Your task to perform on an android device: open app "Nova Launcher" (install if not already installed) Image 0: 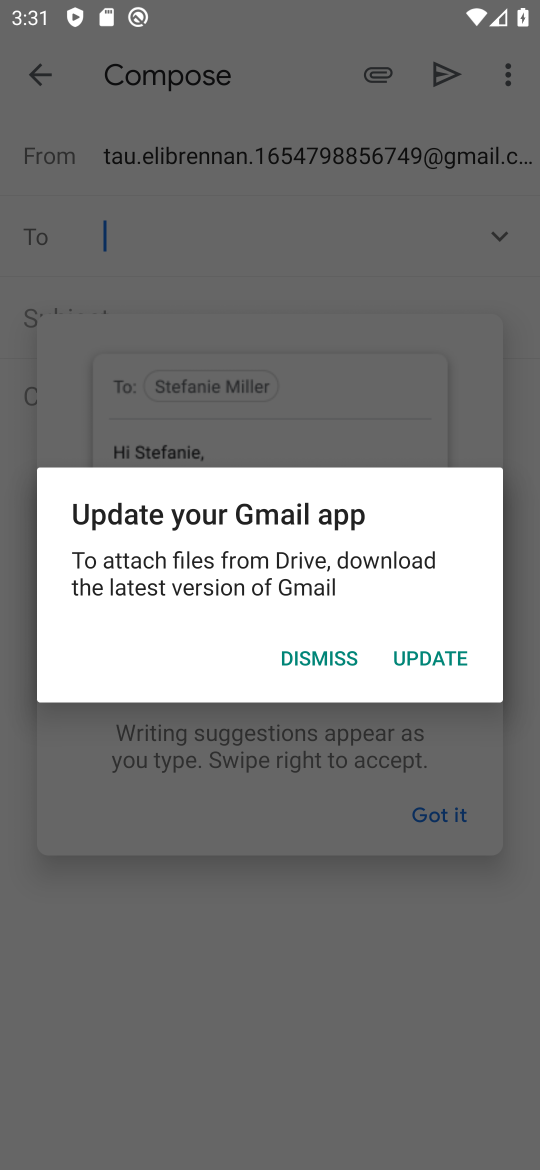
Step 0: press home button
Your task to perform on an android device: open app "Nova Launcher" (install if not already installed) Image 1: 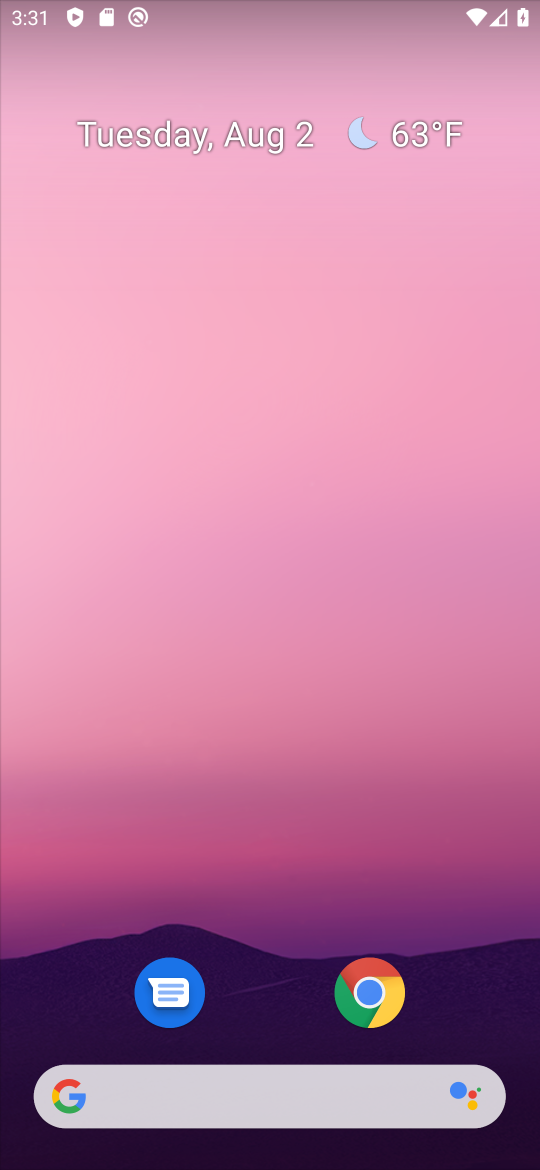
Step 1: drag from (273, 992) to (265, 85)
Your task to perform on an android device: open app "Nova Launcher" (install if not already installed) Image 2: 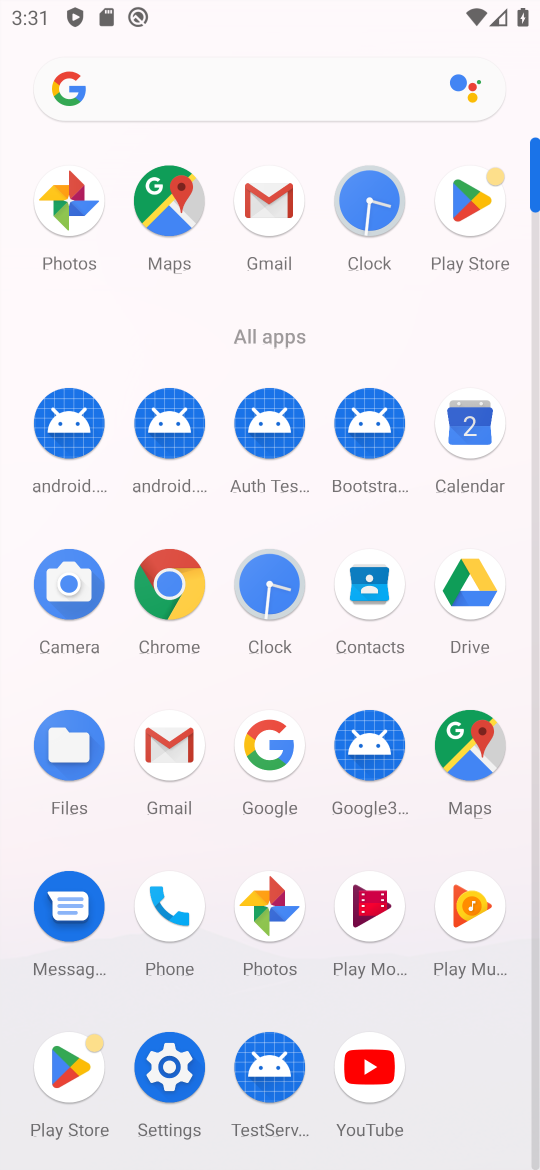
Step 2: click (471, 214)
Your task to perform on an android device: open app "Nova Launcher" (install if not already installed) Image 3: 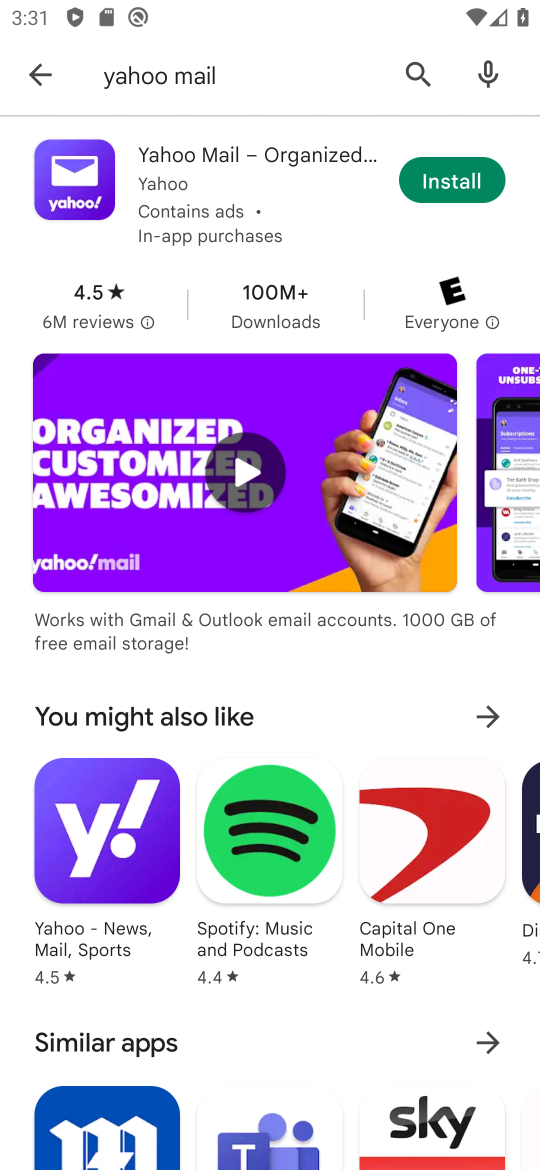
Step 3: click (414, 65)
Your task to perform on an android device: open app "Nova Launcher" (install if not already installed) Image 4: 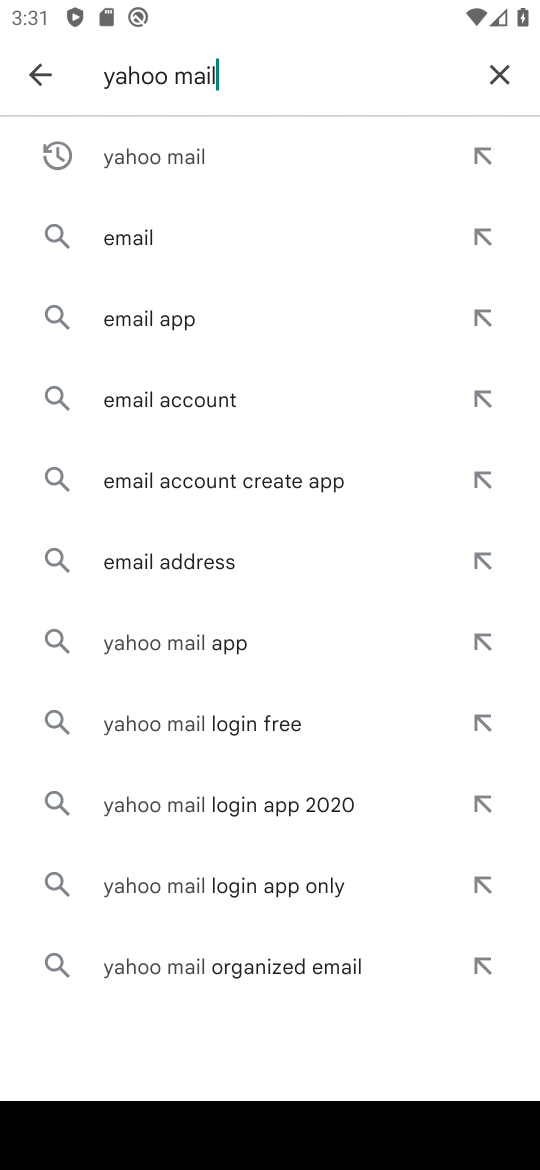
Step 4: click (503, 78)
Your task to perform on an android device: open app "Nova Launcher" (install if not already installed) Image 5: 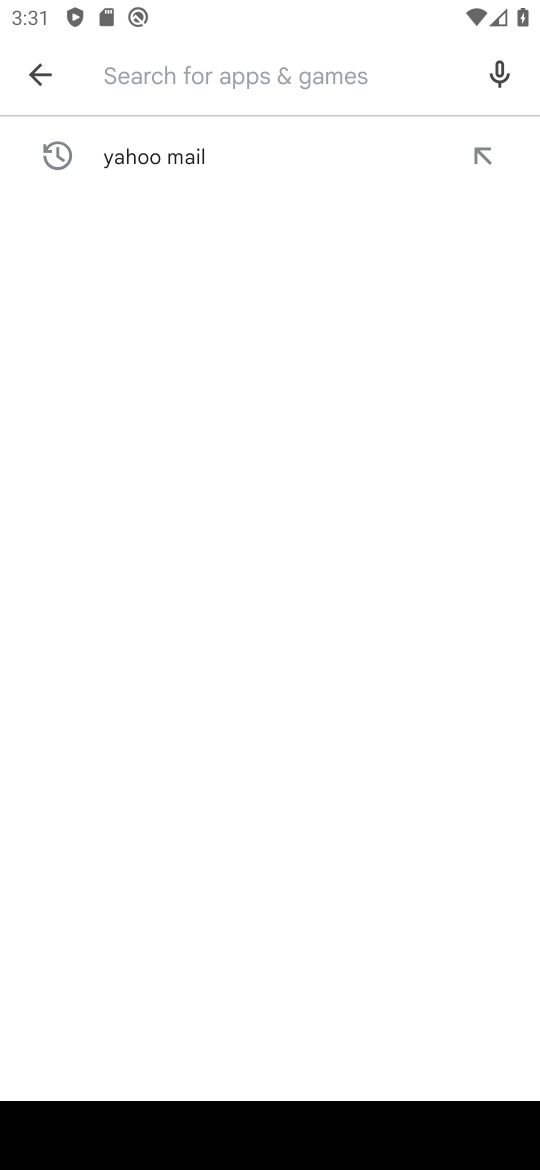
Step 5: type "Nova Launcher"
Your task to perform on an android device: open app "Nova Launcher" (install if not already installed) Image 6: 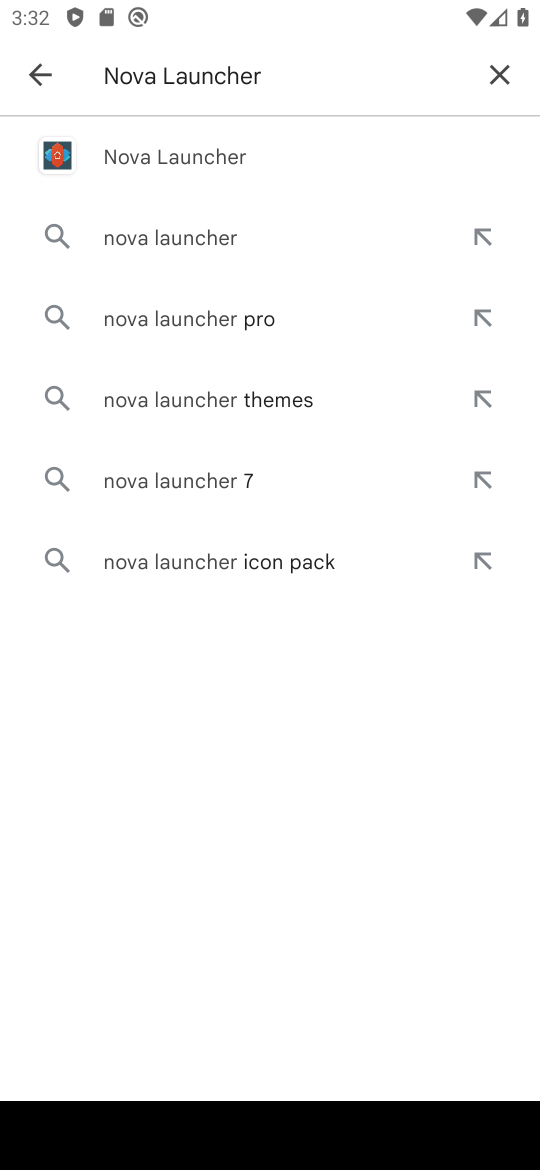
Step 6: click (182, 170)
Your task to perform on an android device: open app "Nova Launcher" (install if not already installed) Image 7: 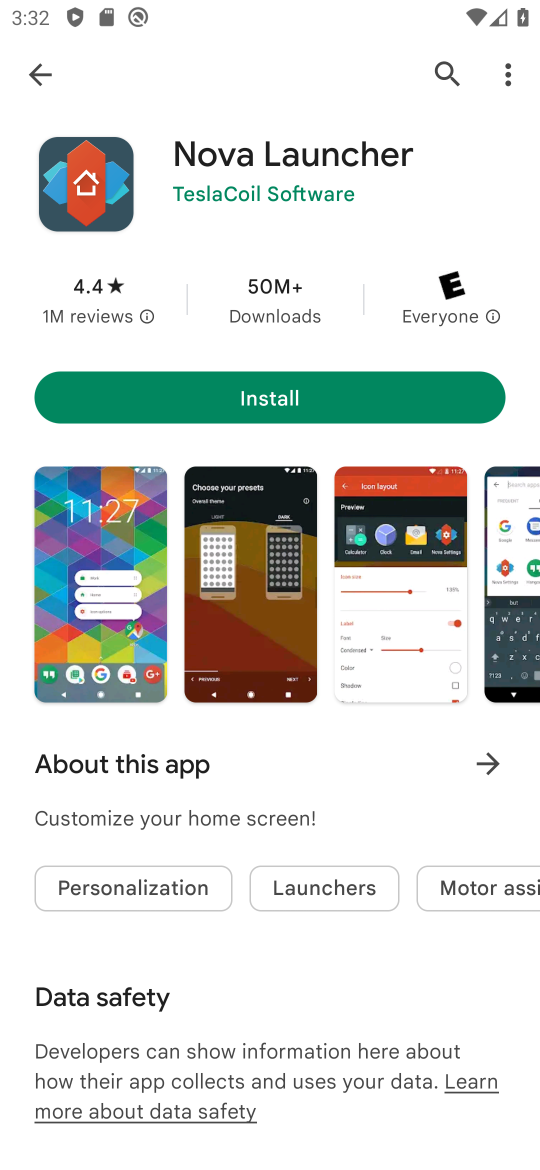
Step 7: click (244, 402)
Your task to perform on an android device: open app "Nova Launcher" (install if not already installed) Image 8: 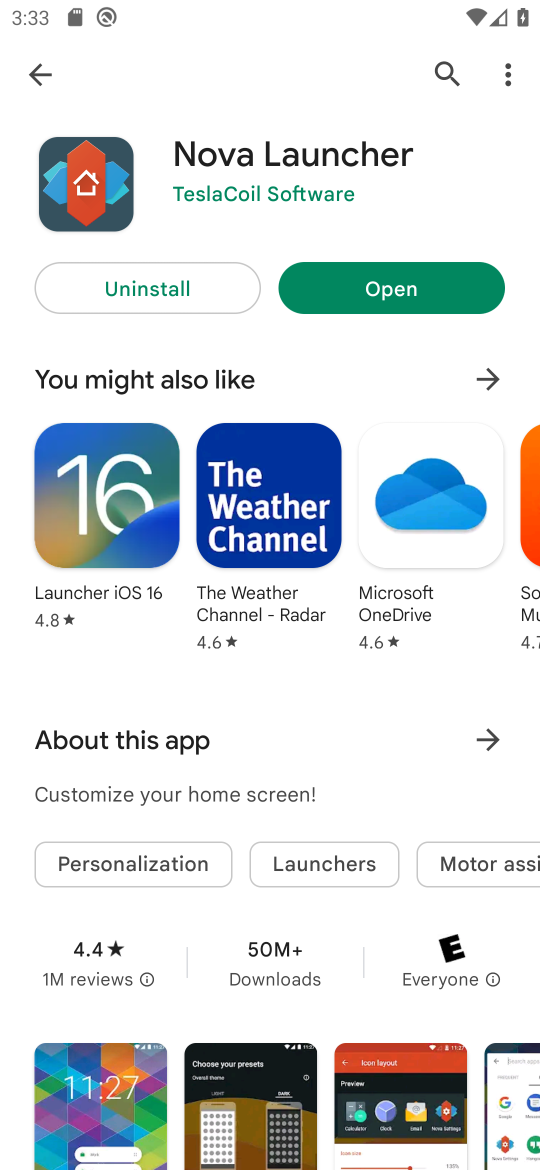
Step 8: click (397, 298)
Your task to perform on an android device: open app "Nova Launcher" (install if not already installed) Image 9: 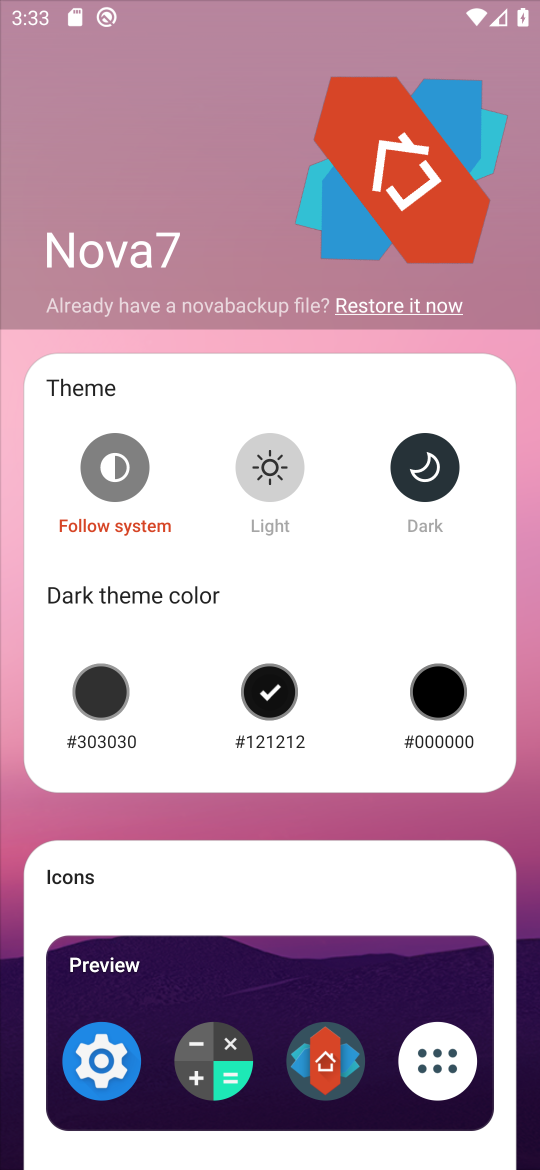
Step 9: task complete